Your task to perform on an android device: toggle wifi Image 0: 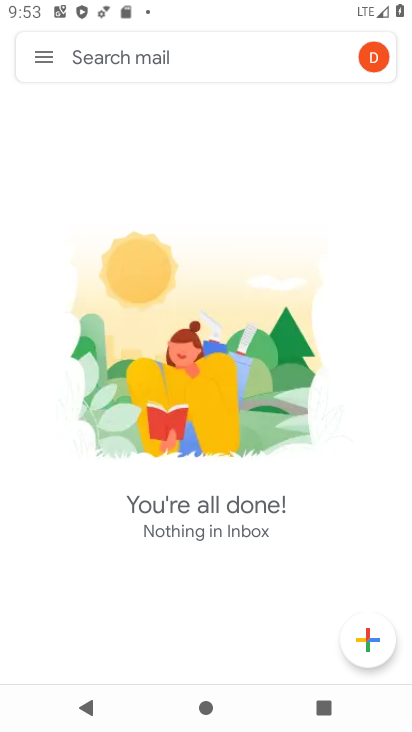
Step 0: press home button
Your task to perform on an android device: toggle wifi Image 1: 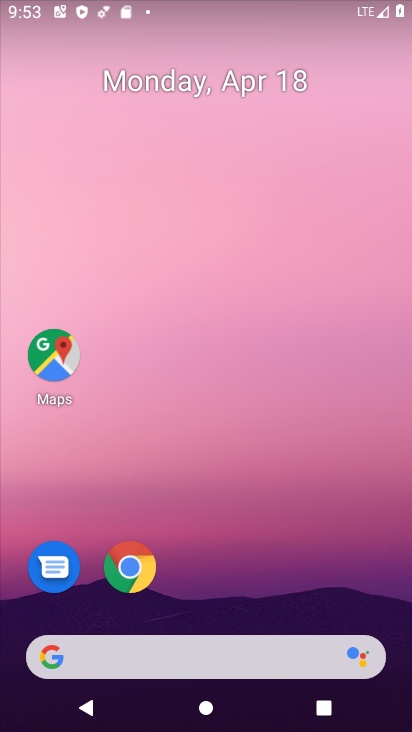
Step 1: drag from (293, 544) to (322, 222)
Your task to perform on an android device: toggle wifi Image 2: 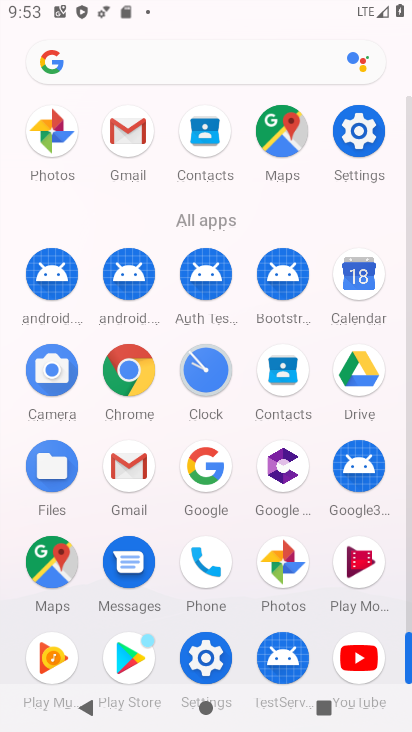
Step 2: click (373, 122)
Your task to perform on an android device: toggle wifi Image 3: 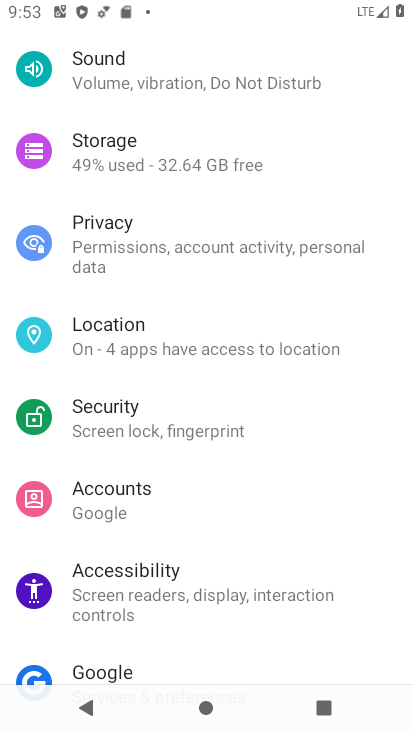
Step 3: drag from (376, 140) to (381, 546)
Your task to perform on an android device: toggle wifi Image 4: 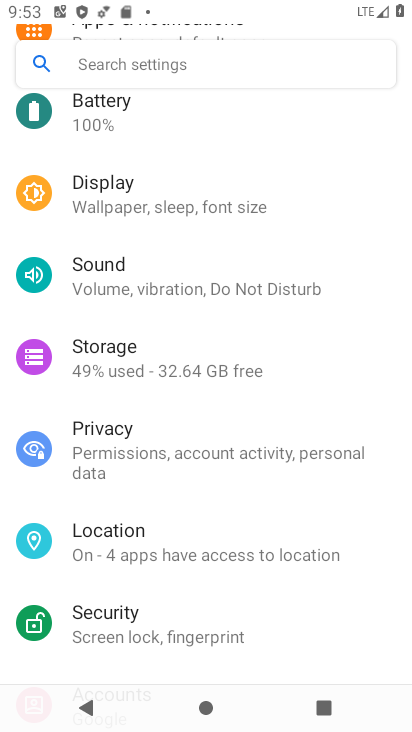
Step 4: drag from (359, 184) to (366, 549)
Your task to perform on an android device: toggle wifi Image 5: 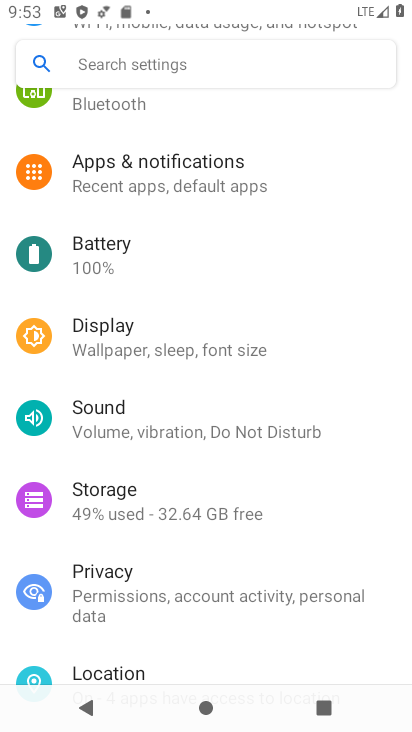
Step 5: drag from (329, 150) to (344, 596)
Your task to perform on an android device: toggle wifi Image 6: 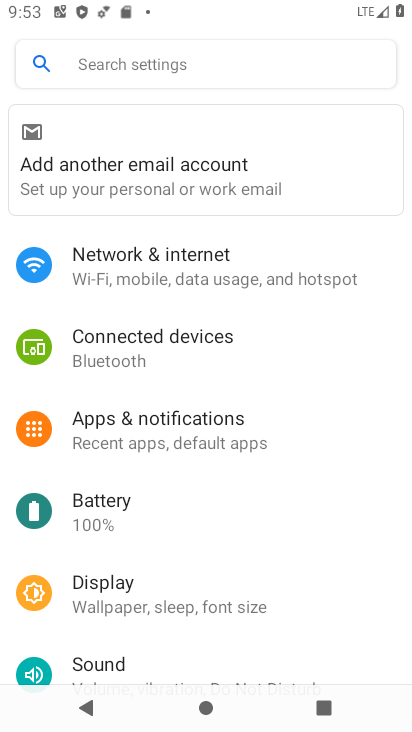
Step 6: click (278, 269)
Your task to perform on an android device: toggle wifi Image 7: 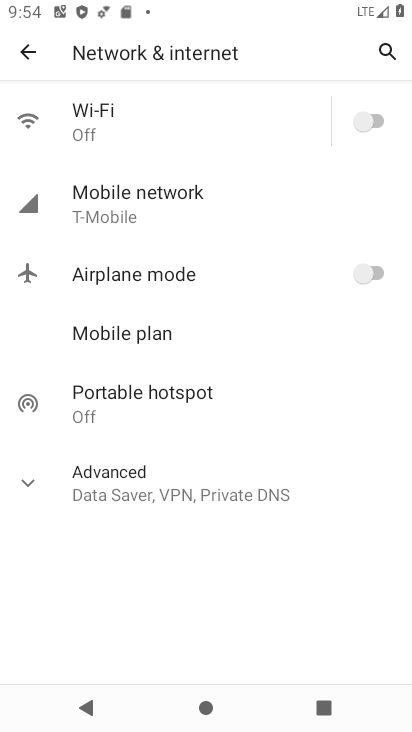
Step 7: click (380, 124)
Your task to perform on an android device: toggle wifi Image 8: 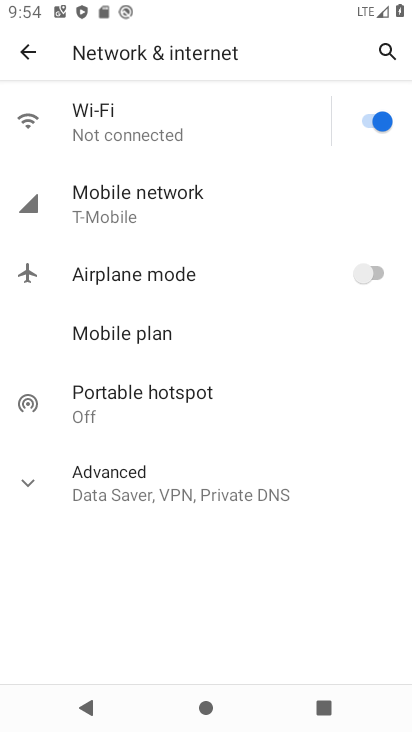
Step 8: task complete